Your task to perform on an android device: Open settings Image 0: 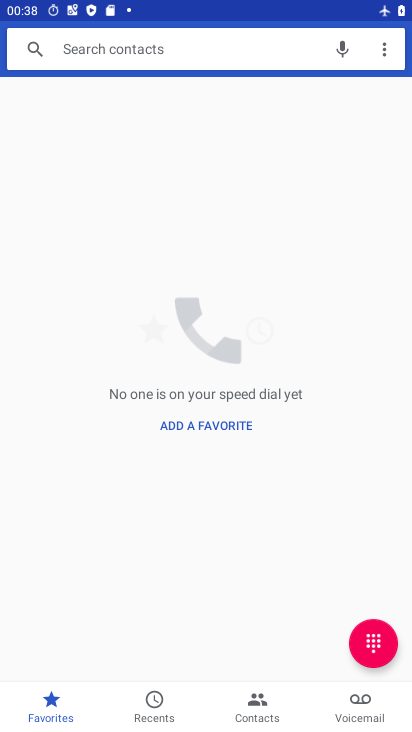
Step 0: press home button
Your task to perform on an android device: Open settings Image 1: 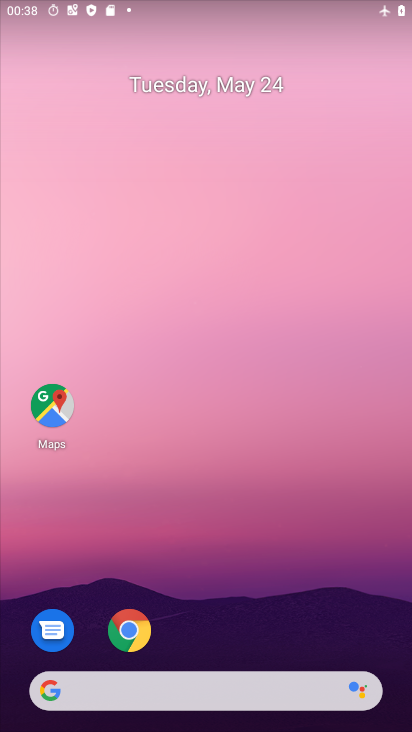
Step 1: drag from (238, 652) to (306, 26)
Your task to perform on an android device: Open settings Image 2: 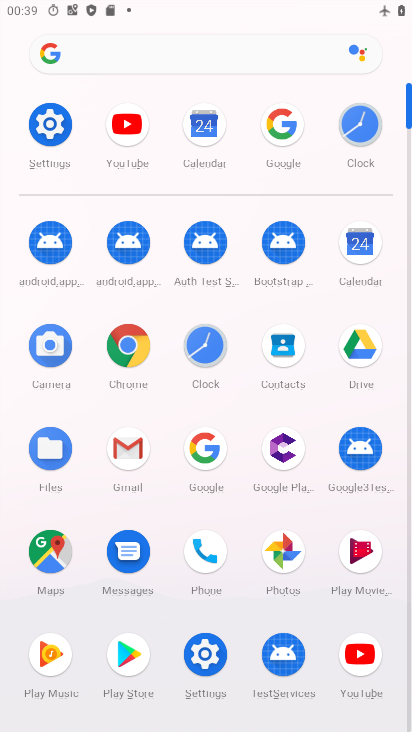
Step 2: click (49, 131)
Your task to perform on an android device: Open settings Image 3: 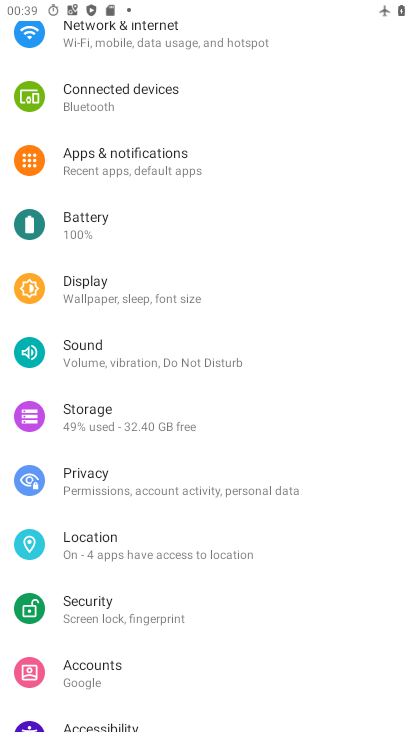
Step 3: task complete